Your task to perform on an android device: Open Maps and search for coffee Image 0: 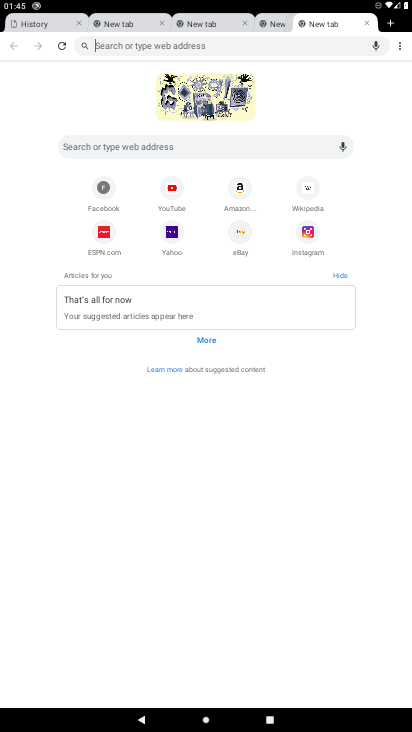
Step 0: press home button
Your task to perform on an android device: Open Maps and search for coffee Image 1: 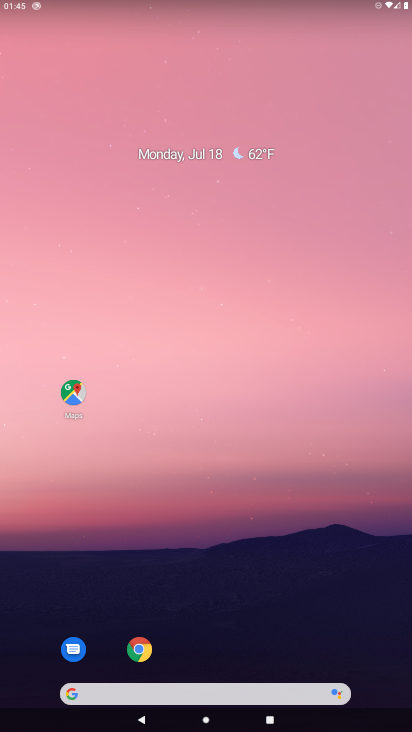
Step 1: click (76, 401)
Your task to perform on an android device: Open Maps and search for coffee Image 2: 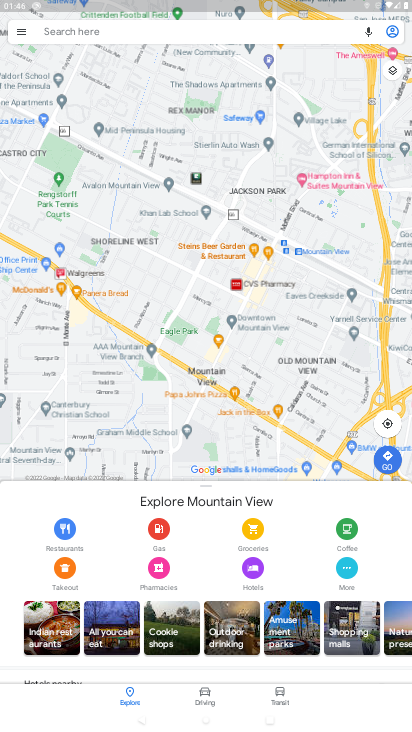
Step 2: click (58, 37)
Your task to perform on an android device: Open Maps and search for coffee Image 3: 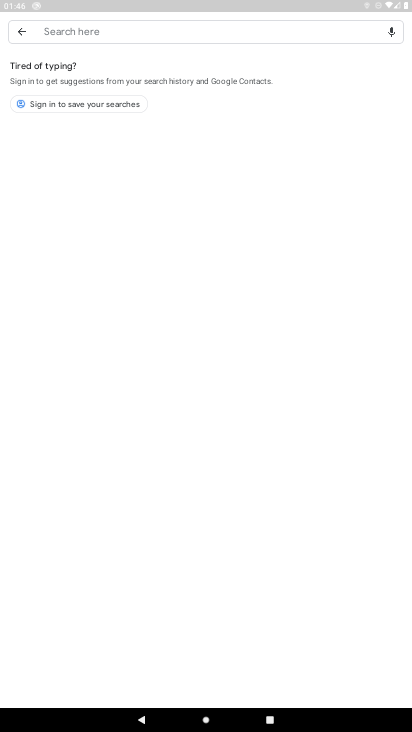
Step 3: type "coffee"
Your task to perform on an android device: Open Maps and search for coffee Image 4: 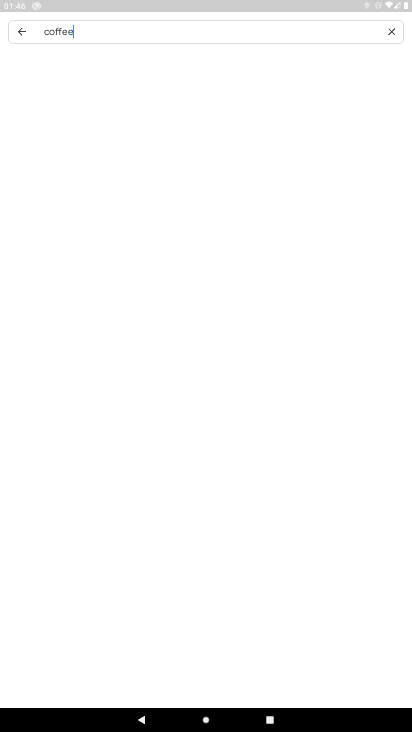
Step 4: type ""
Your task to perform on an android device: Open Maps and search for coffee Image 5: 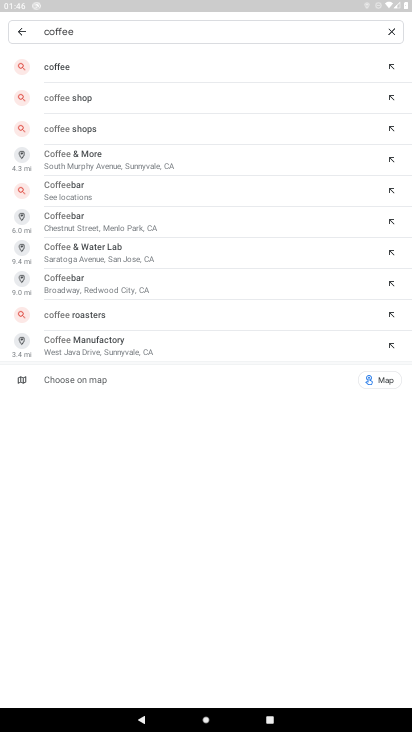
Step 5: click (53, 60)
Your task to perform on an android device: Open Maps and search for coffee Image 6: 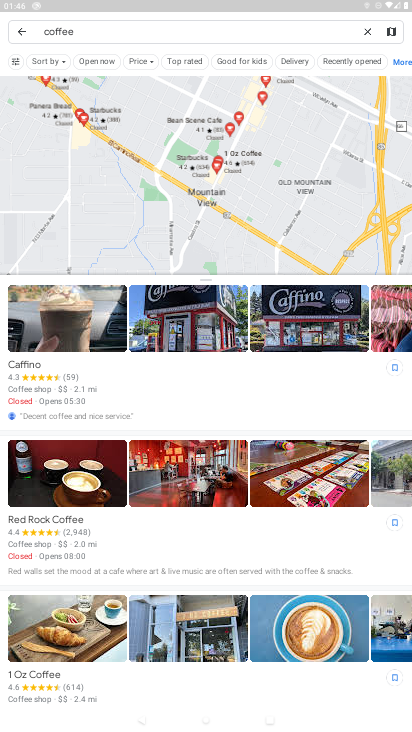
Step 6: task complete